Your task to perform on an android device: Open calendar and show me the third week of next month Image 0: 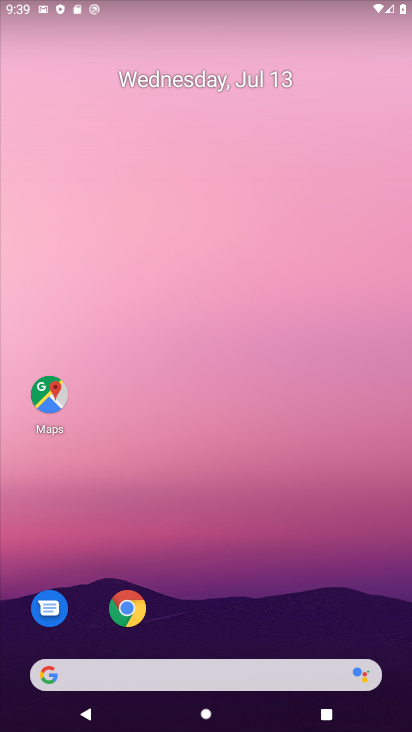
Step 0: drag from (10, 601) to (233, 132)
Your task to perform on an android device: Open calendar and show me the third week of next month Image 1: 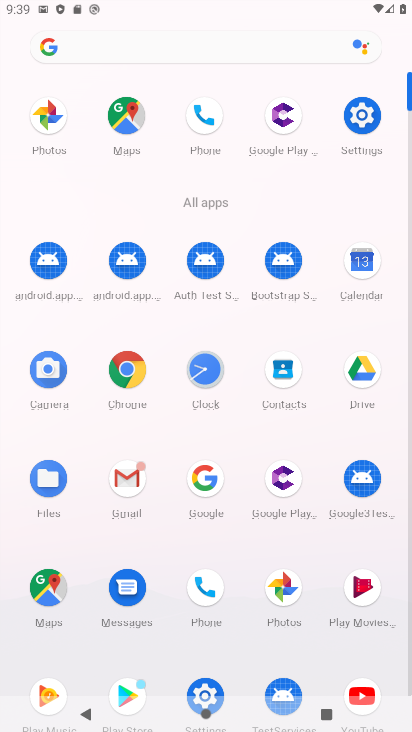
Step 1: click (363, 263)
Your task to perform on an android device: Open calendar and show me the third week of next month Image 2: 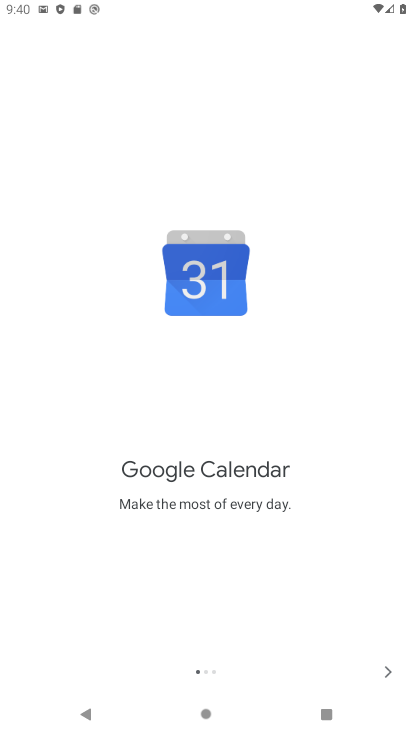
Step 2: click (392, 667)
Your task to perform on an android device: Open calendar and show me the third week of next month Image 3: 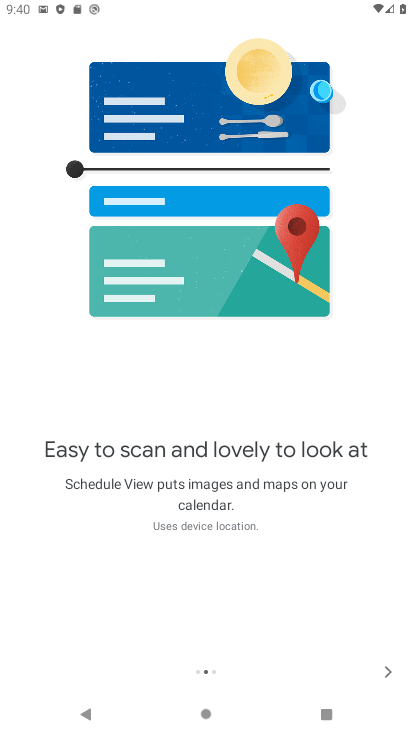
Step 3: click (389, 668)
Your task to perform on an android device: Open calendar and show me the third week of next month Image 4: 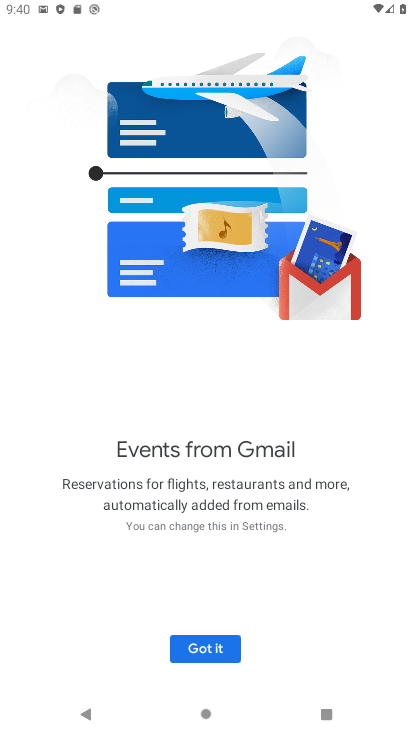
Step 4: click (225, 658)
Your task to perform on an android device: Open calendar and show me the third week of next month Image 5: 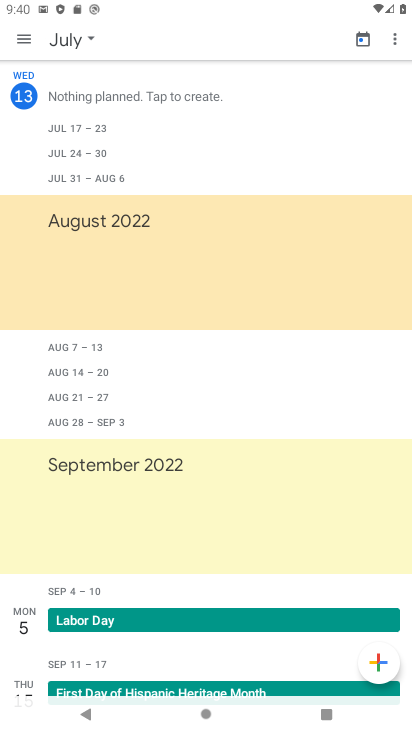
Step 5: click (71, 44)
Your task to perform on an android device: Open calendar and show me the third week of next month Image 6: 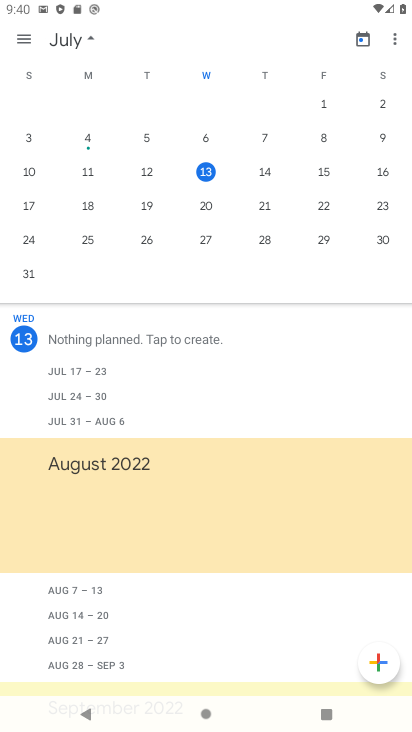
Step 6: drag from (401, 211) to (19, 173)
Your task to perform on an android device: Open calendar and show me the third week of next month Image 7: 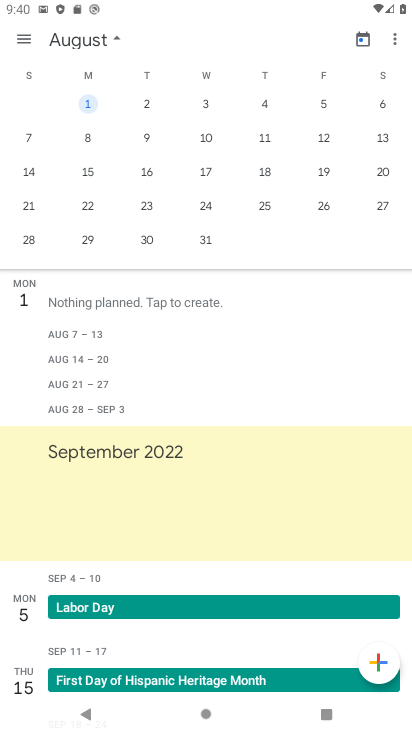
Step 7: click (149, 138)
Your task to perform on an android device: Open calendar and show me the third week of next month Image 8: 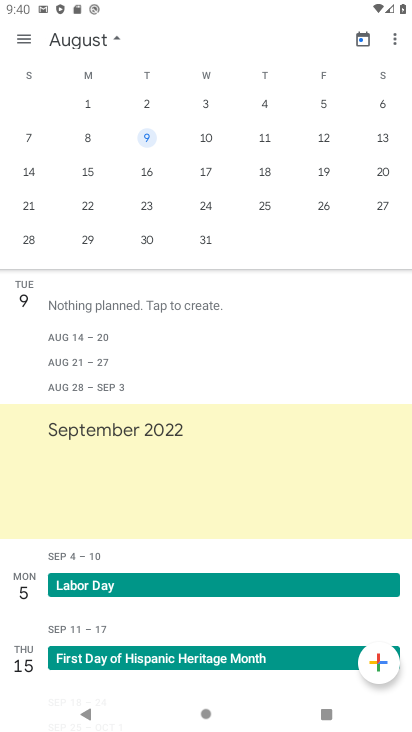
Step 8: click (145, 174)
Your task to perform on an android device: Open calendar and show me the third week of next month Image 9: 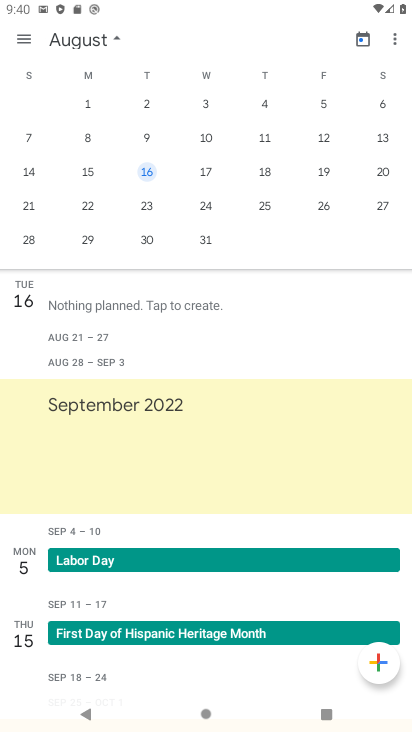
Step 9: task complete